Your task to perform on an android device: Search for seafood restaurants on Google Maps Image 0: 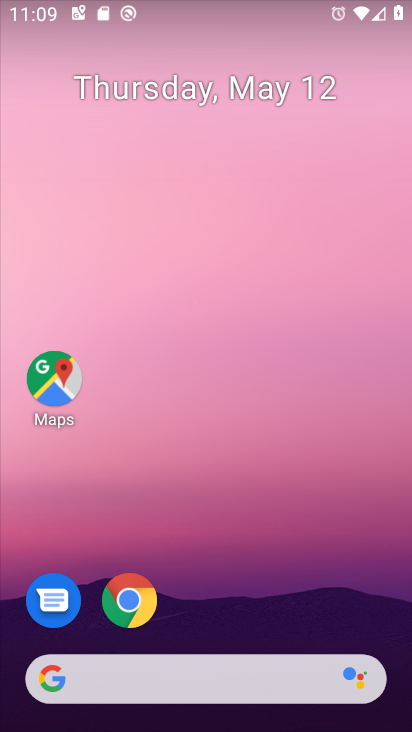
Step 0: click (69, 373)
Your task to perform on an android device: Search for seafood restaurants on Google Maps Image 1: 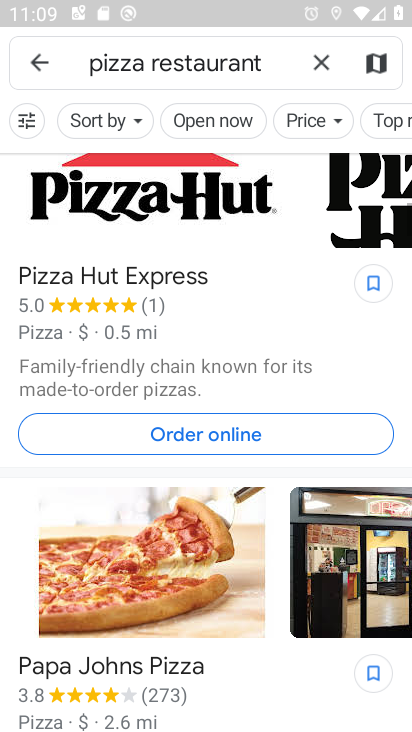
Step 1: click (315, 66)
Your task to perform on an android device: Search for seafood restaurants on Google Maps Image 2: 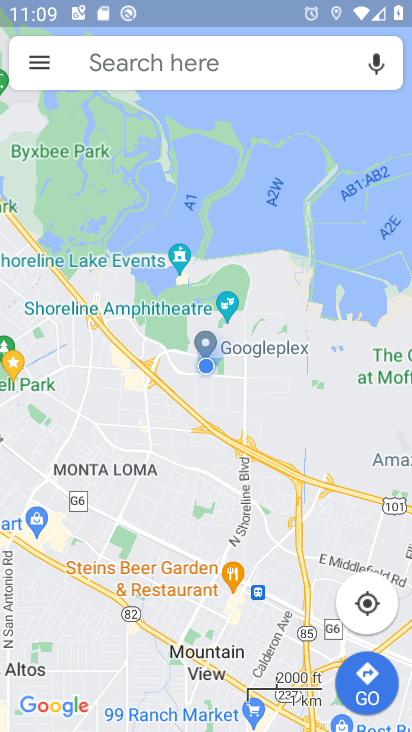
Step 2: click (226, 63)
Your task to perform on an android device: Search for seafood restaurants on Google Maps Image 3: 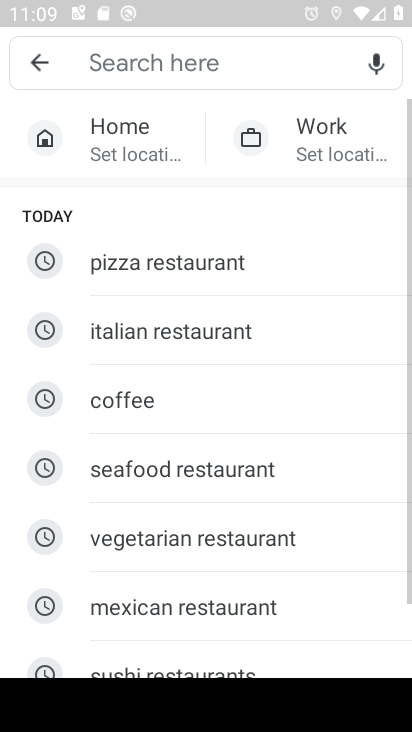
Step 3: click (173, 470)
Your task to perform on an android device: Search for seafood restaurants on Google Maps Image 4: 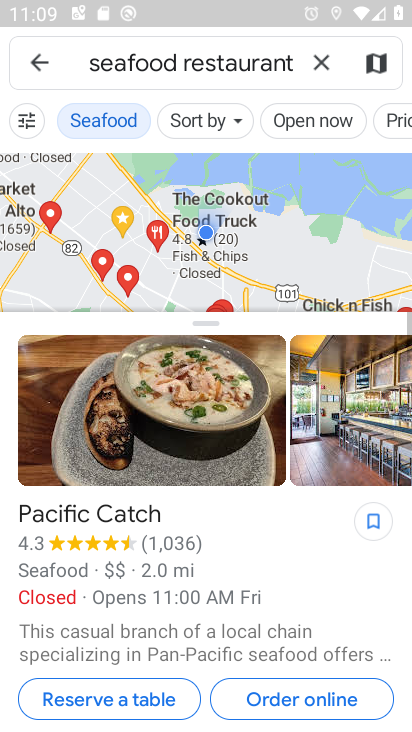
Step 4: task complete